Your task to perform on an android device: add a contact Image 0: 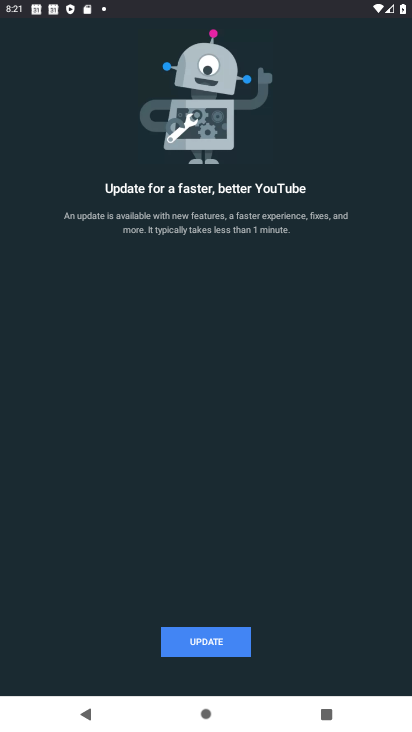
Step 0: press back button
Your task to perform on an android device: add a contact Image 1: 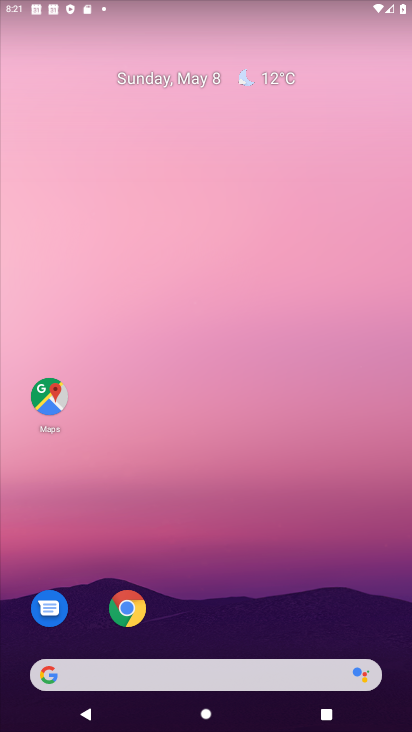
Step 1: drag from (255, 557) to (256, 36)
Your task to perform on an android device: add a contact Image 2: 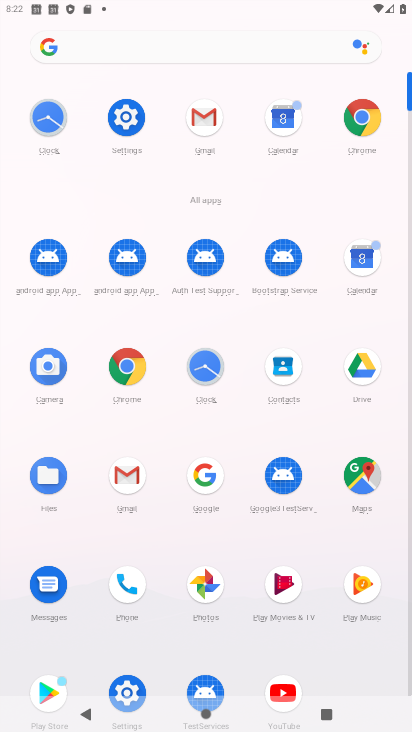
Step 2: click (280, 361)
Your task to perform on an android device: add a contact Image 3: 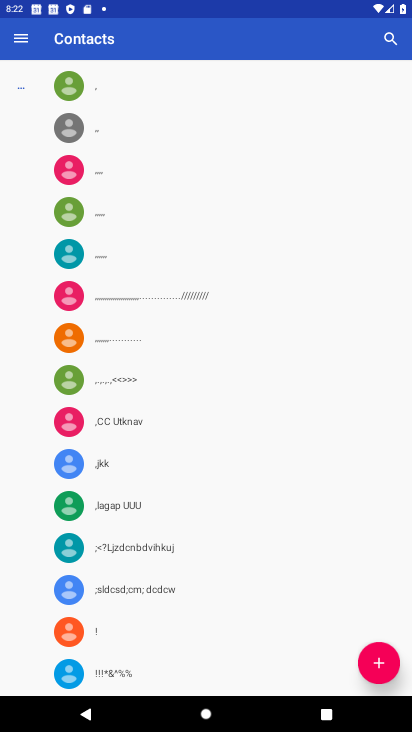
Step 3: click (372, 668)
Your task to perform on an android device: add a contact Image 4: 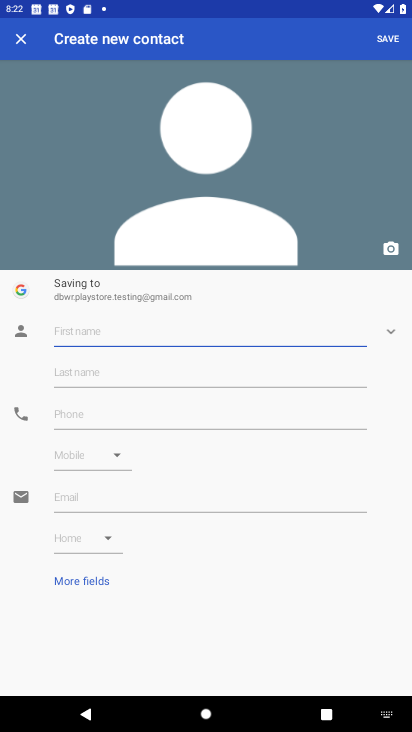
Step 4: type "Lkjhg"
Your task to perform on an android device: add a contact Image 5: 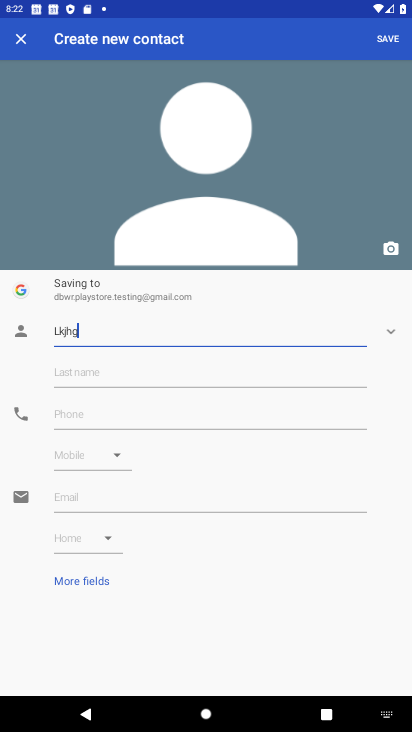
Step 5: type ""
Your task to perform on an android device: add a contact Image 6: 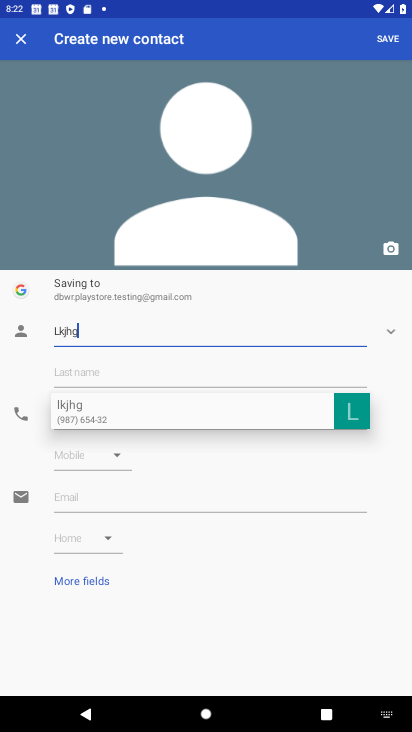
Step 6: click (68, 368)
Your task to perform on an android device: add a contact Image 7: 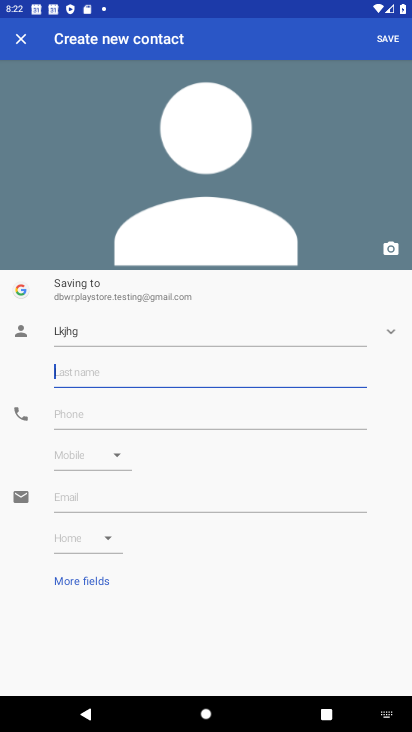
Step 7: type "ioii"
Your task to perform on an android device: add a contact Image 8: 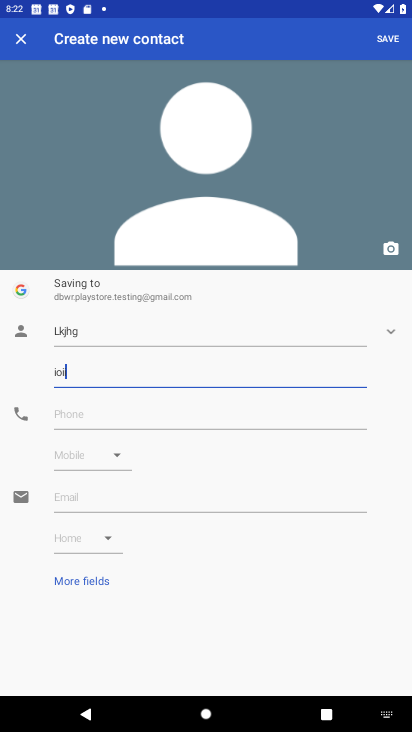
Step 8: type ""
Your task to perform on an android device: add a contact Image 9: 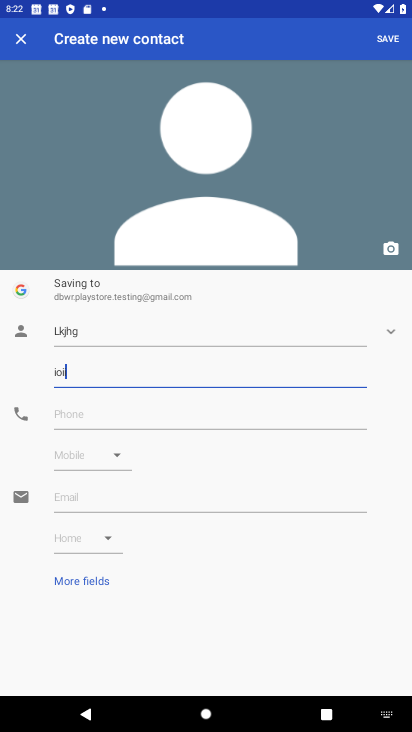
Step 9: click (128, 417)
Your task to perform on an android device: add a contact Image 10: 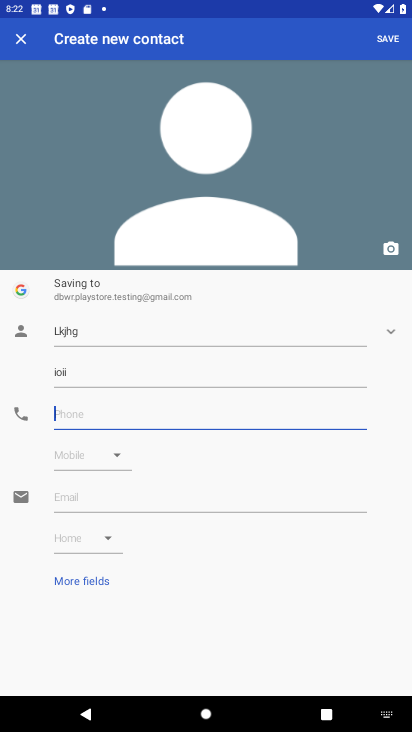
Step 10: type "635447900"
Your task to perform on an android device: add a contact Image 11: 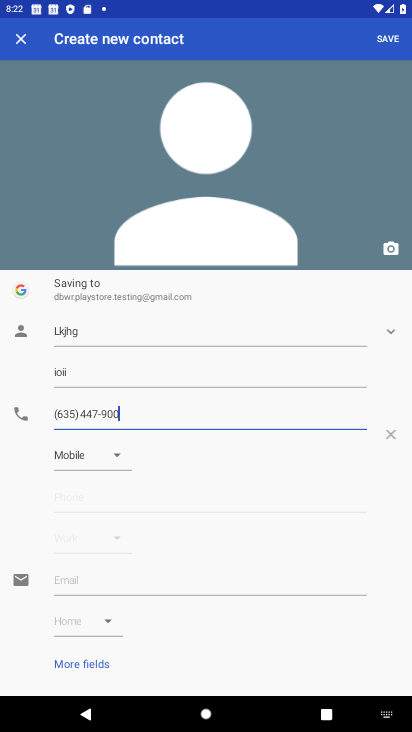
Step 11: type ""
Your task to perform on an android device: add a contact Image 12: 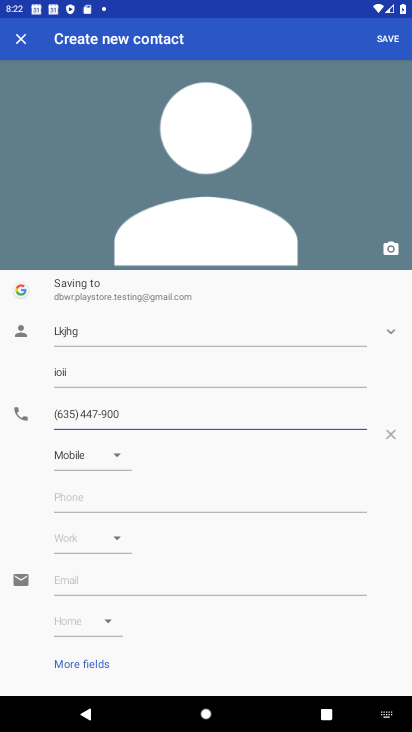
Step 12: click (379, 37)
Your task to perform on an android device: add a contact Image 13: 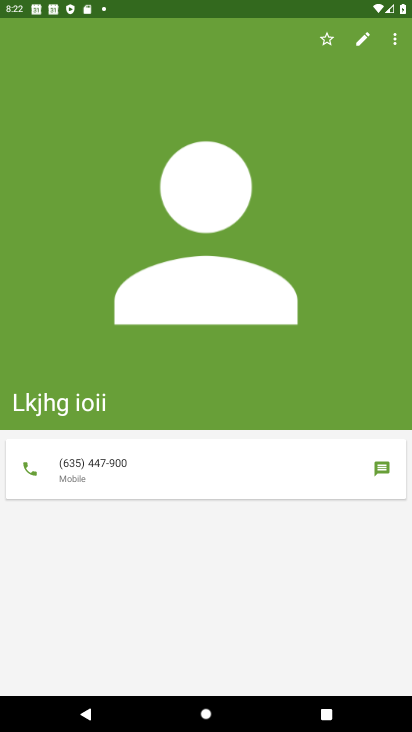
Step 13: task complete